Your task to perform on an android device: move an email to a new category in the gmail app Image 0: 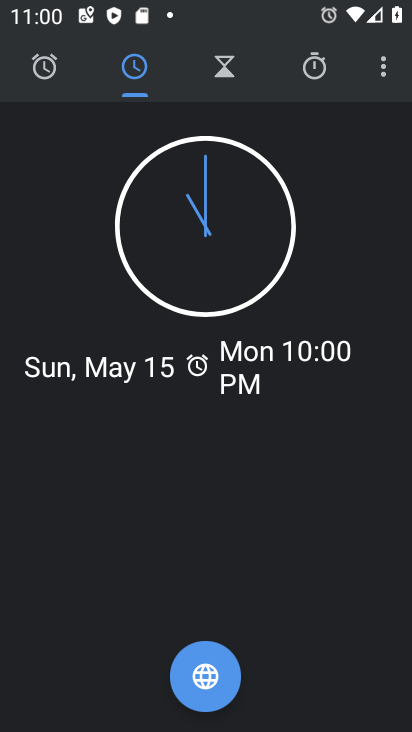
Step 0: press home button
Your task to perform on an android device: move an email to a new category in the gmail app Image 1: 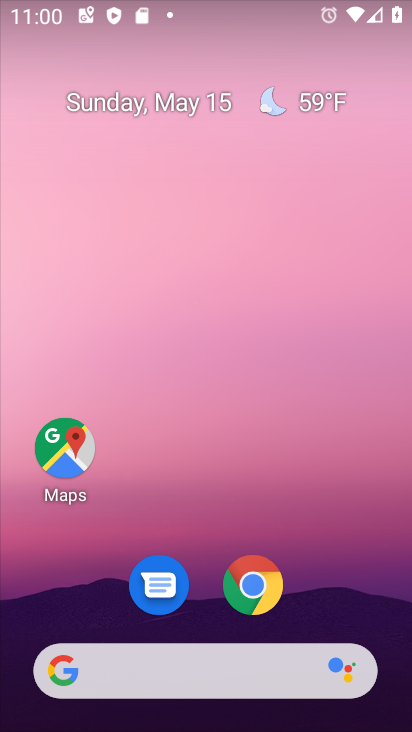
Step 1: drag from (212, 492) to (213, 55)
Your task to perform on an android device: move an email to a new category in the gmail app Image 2: 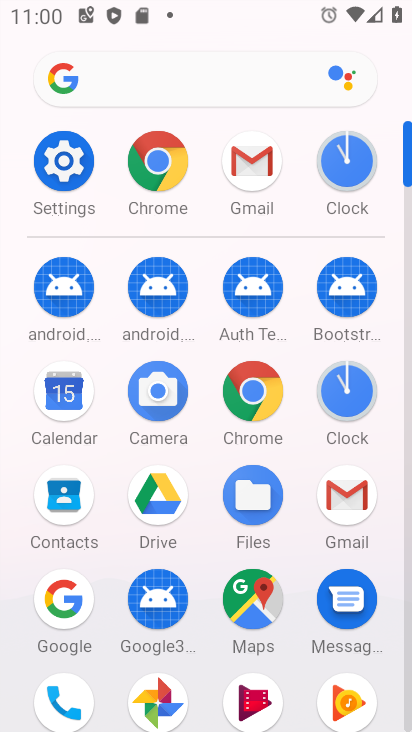
Step 2: click (258, 154)
Your task to perform on an android device: move an email to a new category in the gmail app Image 3: 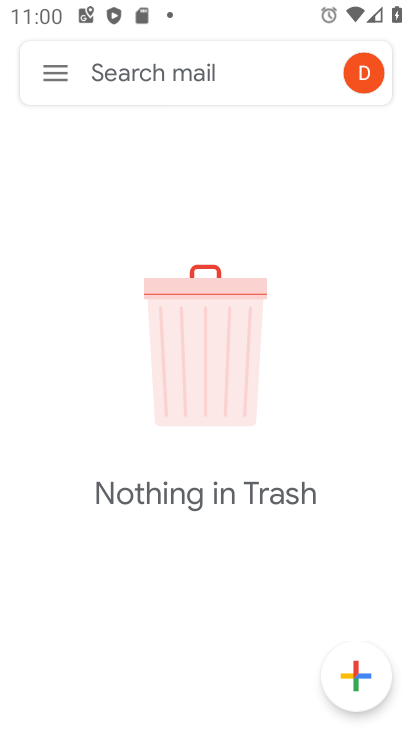
Step 3: click (58, 68)
Your task to perform on an android device: move an email to a new category in the gmail app Image 4: 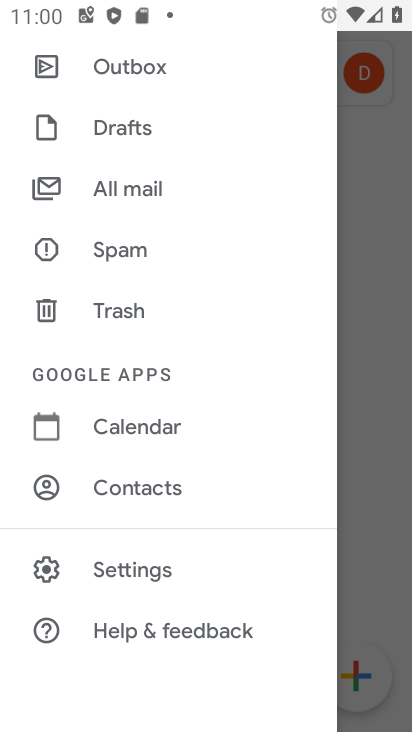
Step 4: click (93, 188)
Your task to perform on an android device: move an email to a new category in the gmail app Image 5: 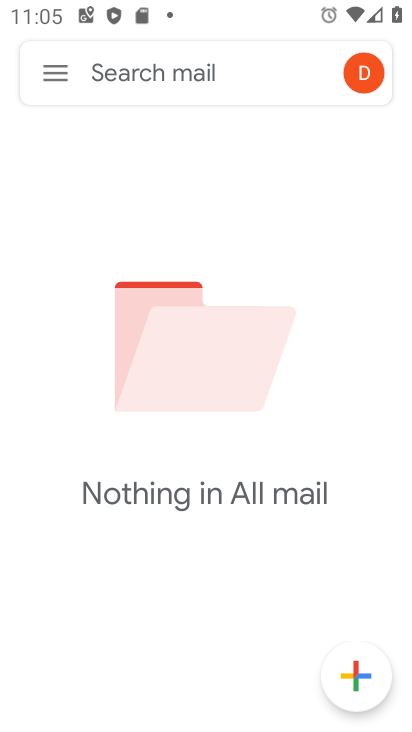
Step 5: task complete